Your task to perform on an android device: find snoozed emails in the gmail app Image 0: 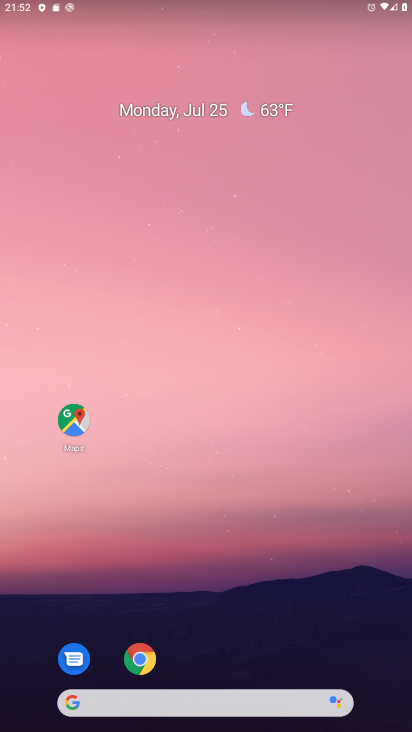
Step 0: drag from (219, 728) to (219, 247)
Your task to perform on an android device: find snoozed emails in the gmail app Image 1: 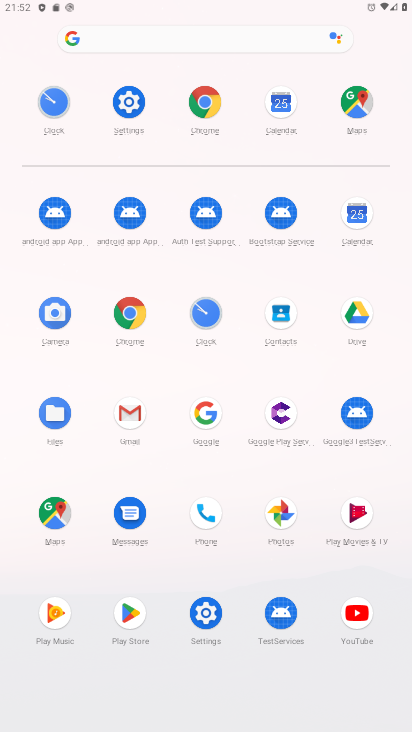
Step 1: click (126, 415)
Your task to perform on an android device: find snoozed emails in the gmail app Image 2: 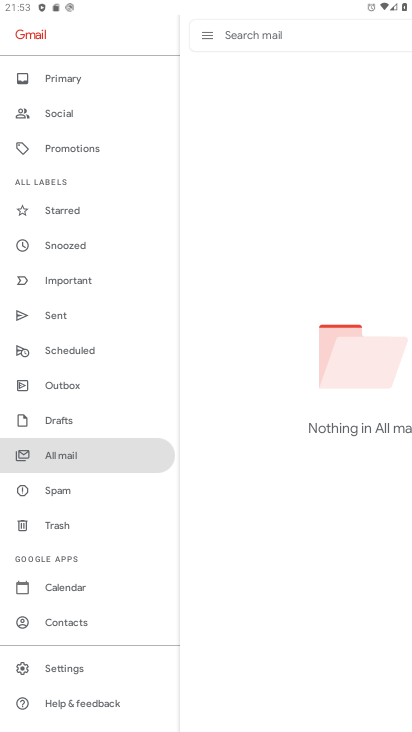
Step 2: click (69, 241)
Your task to perform on an android device: find snoozed emails in the gmail app Image 3: 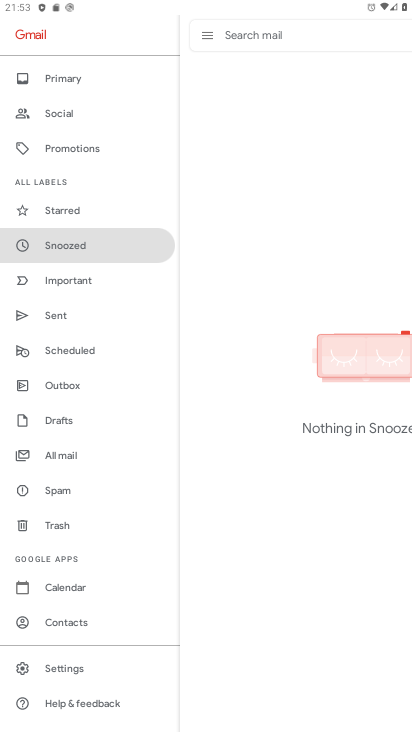
Step 3: task complete